Your task to perform on an android device: Open settings on Google Maps Image 0: 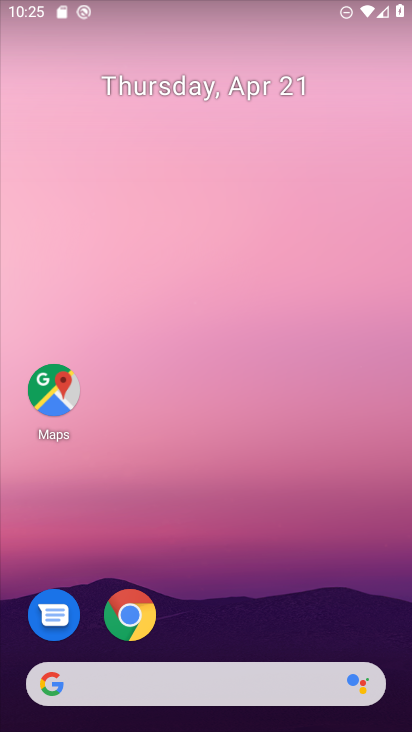
Step 0: drag from (209, 656) to (208, 238)
Your task to perform on an android device: Open settings on Google Maps Image 1: 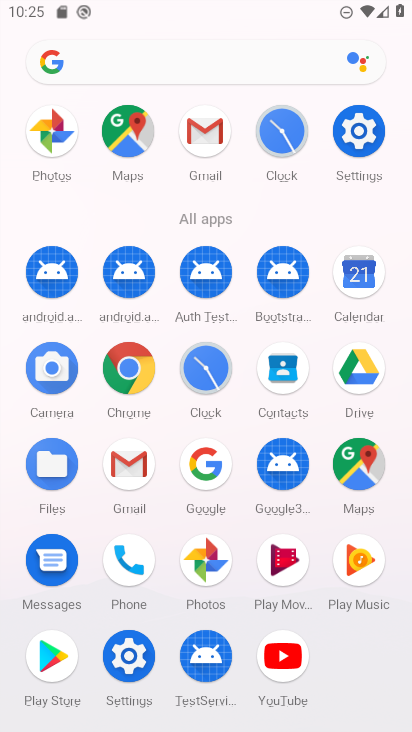
Step 1: click (126, 136)
Your task to perform on an android device: Open settings on Google Maps Image 2: 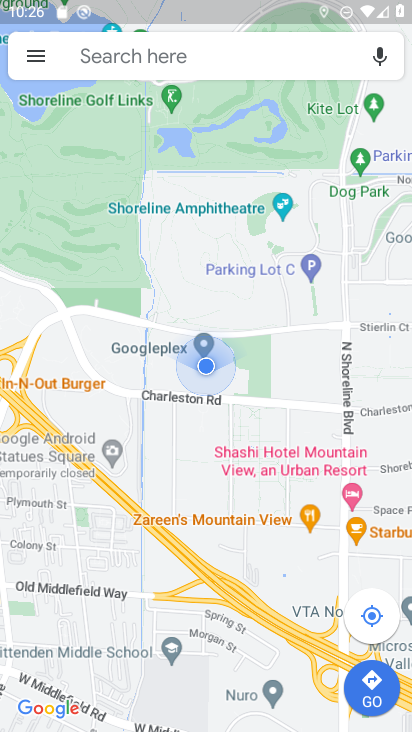
Step 2: task complete